Your task to perform on an android device: Open Google Chrome and open the bookmarks view Image 0: 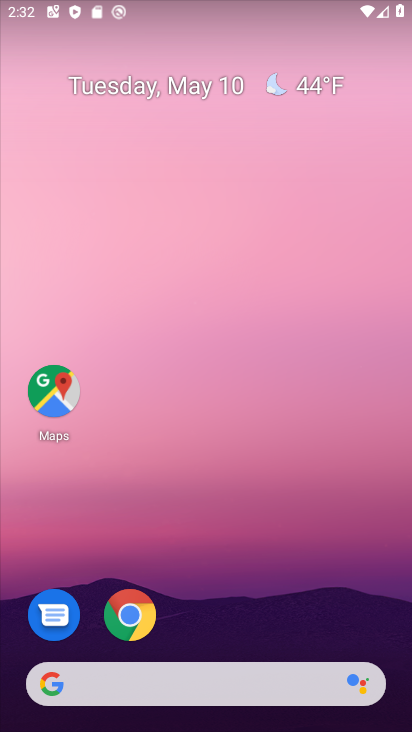
Step 0: click (112, 631)
Your task to perform on an android device: Open Google Chrome and open the bookmarks view Image 1: 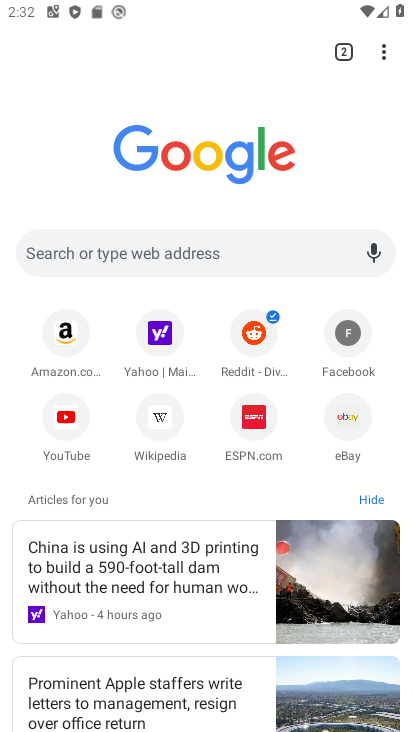
Step 1: task complete